Your task to perform on an android device: Play the last video I watched on Youtube Image 0: 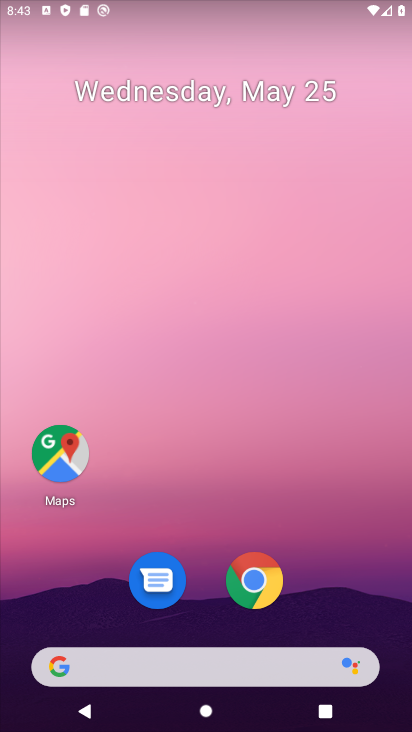
Step 0: drag from (173, 724) to (236, 162)
Your task to perform on an android device: Play the last video I watched on Youtube Image 1: 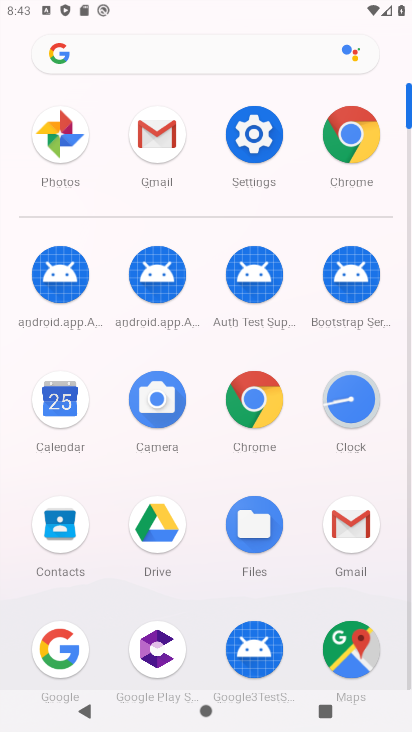
Step 1: drag from (63, 546) to (278, 116)
Your task to perform on an android device: Play the last video I watched on Youtube Image 2: 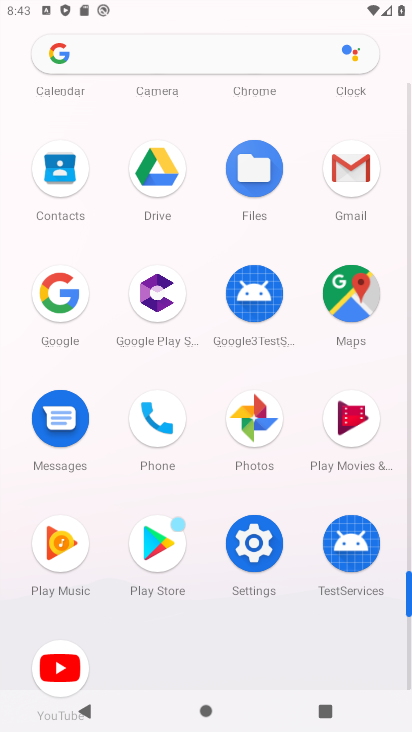
Step 2: click (69, 659)
Your task to perform on an android device: Play the last video I watched on Youtube Image 3: 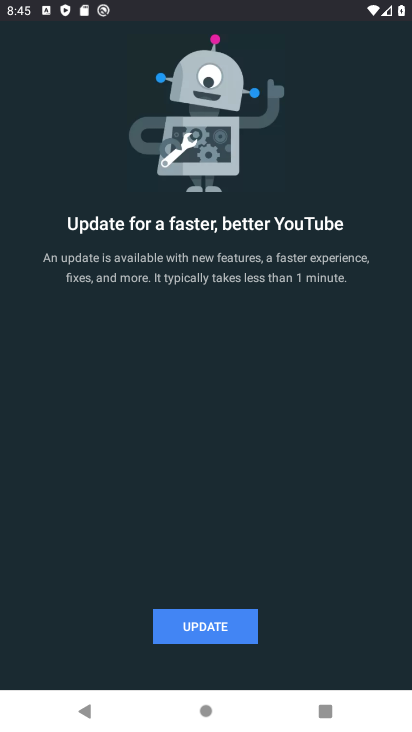
Step 3: task complete